Your task to perform on an android device: add a contact in the contacts app Image 0: 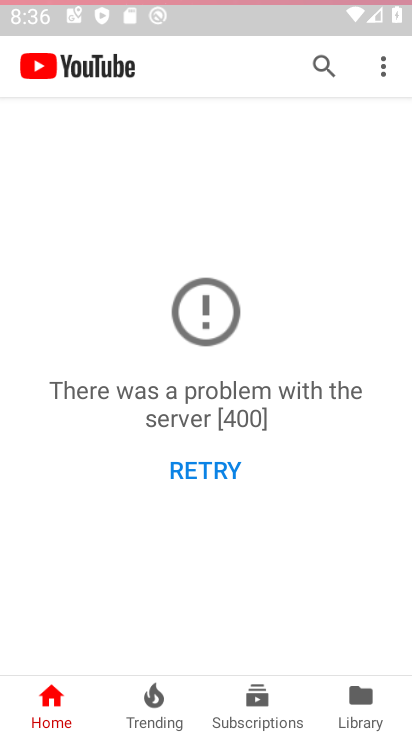
Step 0: click (164, 25)
Your task to perform on an android device: add a contact in the contacts app Image 1: 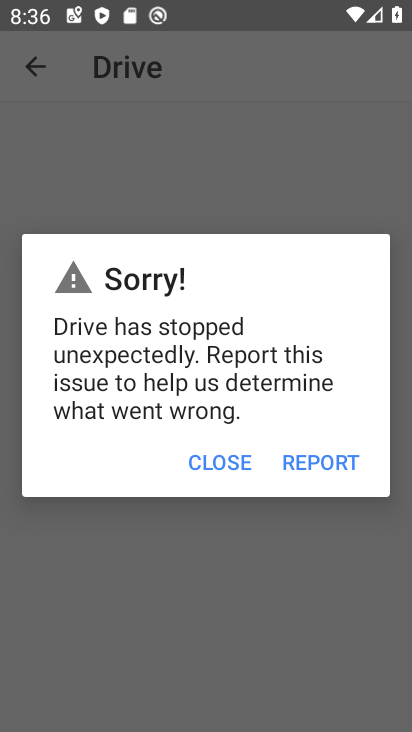
Step 1: press home button
Your task to perform on an android device: add a contact in the contacts app Image 2: 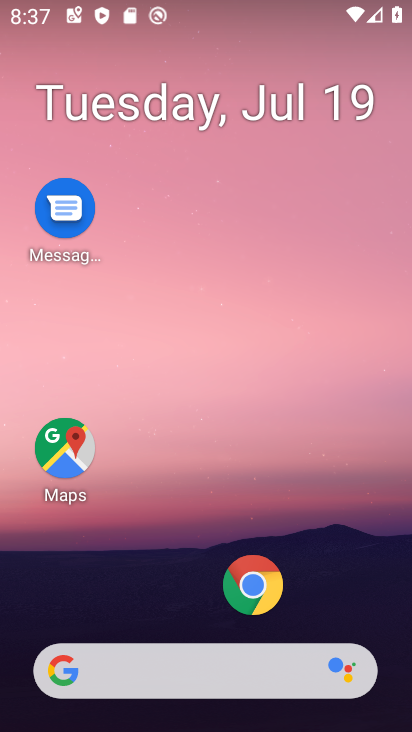
Step 2: drag from (205, 621) to (301, 74)
Your task to perform on an android device: add a contact in the contacts app Image 3: 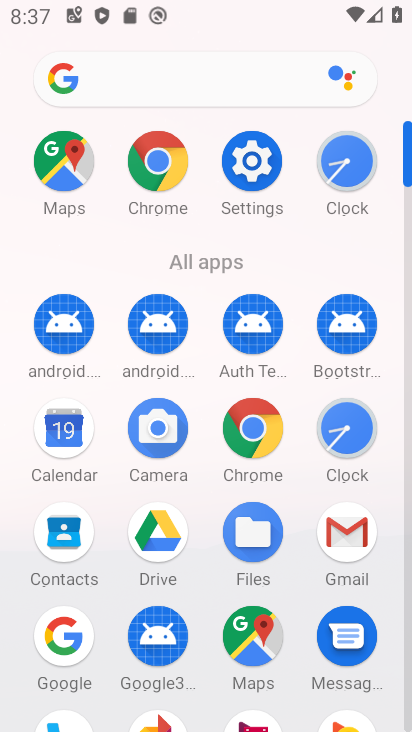
Step 3: click (53, 724)
Your task to perform on an android device: add a contact in the contacts app Image 4: 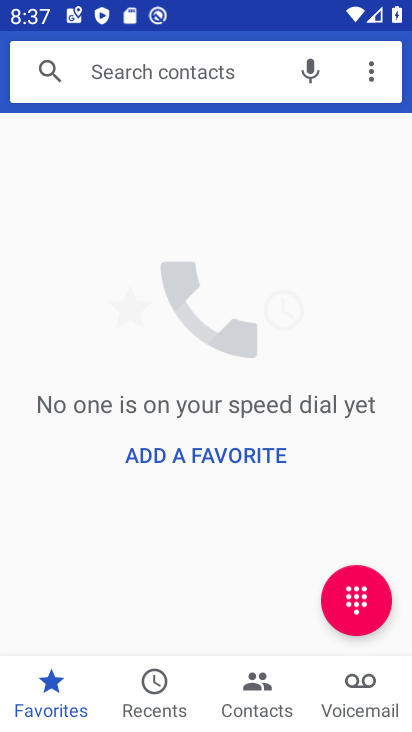
Step 4: click (268, 684)
Your task to perform on an android device: add a contact in the contacts app Image 5: 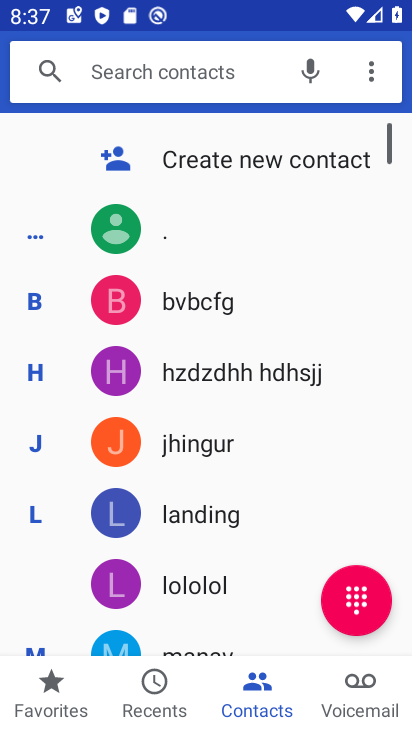
Step 5: click (227, 148)
Your task to perform on an android device: add a contact in the contacts app Image 6: 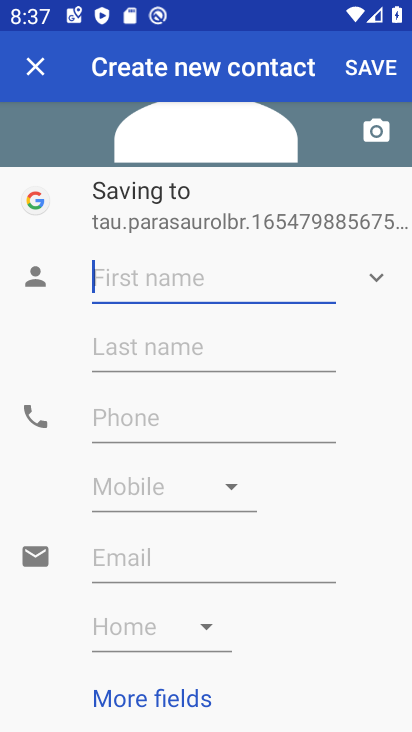
Step 6: type "fv"
Your task to perform on an android device: add a contact in the contacts app Image 7: 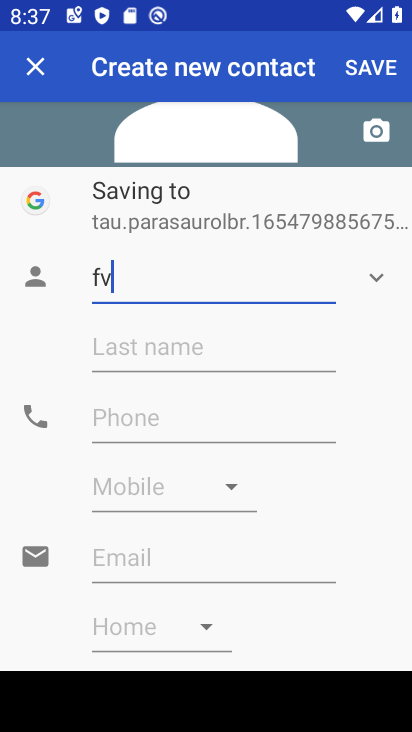
Step 7: click (261, 420)
Your task to perform on an android device: add a contact in the contacts app Image 8: 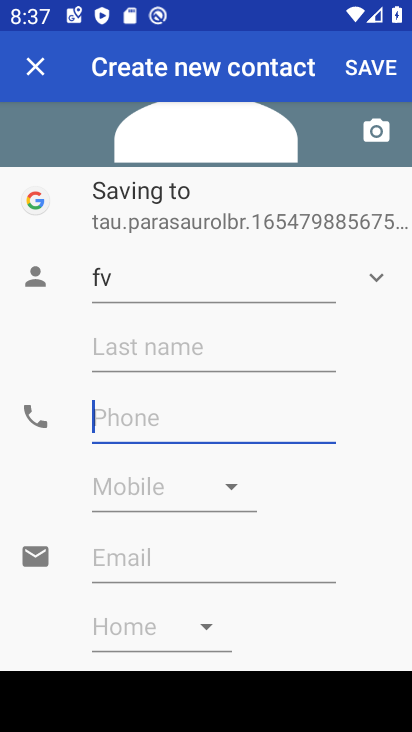
Step 8: type "433"
Your task to perform on an android device: add a contact in the contacts app Image 9: 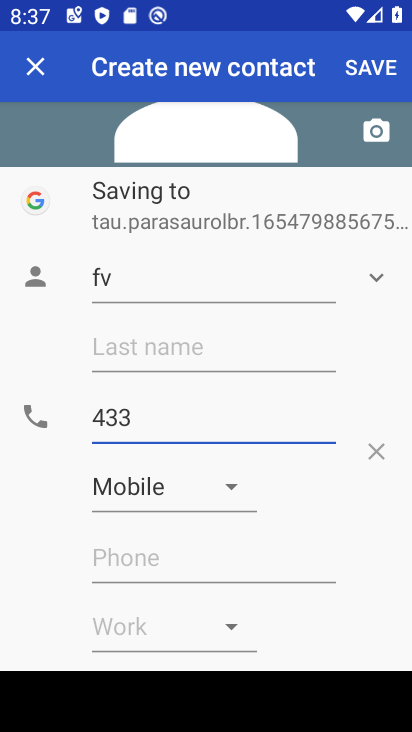
Step 9: click (380, 72)
Your task to perform on an android device: add a contact in the contacts app Image 10: 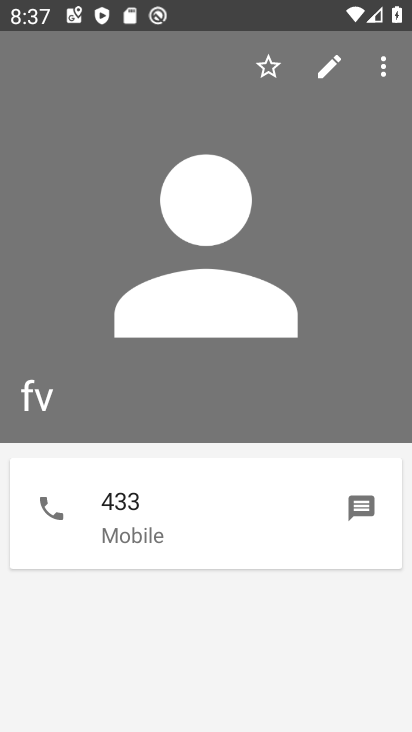
Step 10: task complete